Your task to perform on an android device: Go to sound settings Image 0: 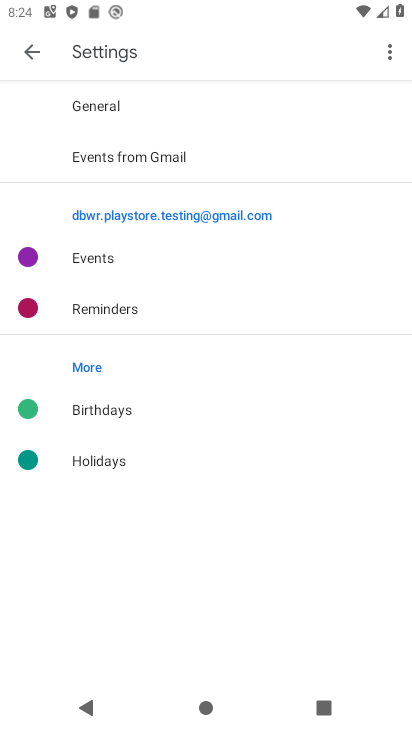
Step 0: press home button
Your task to perform on an android device: Go to sound settings Image 1: 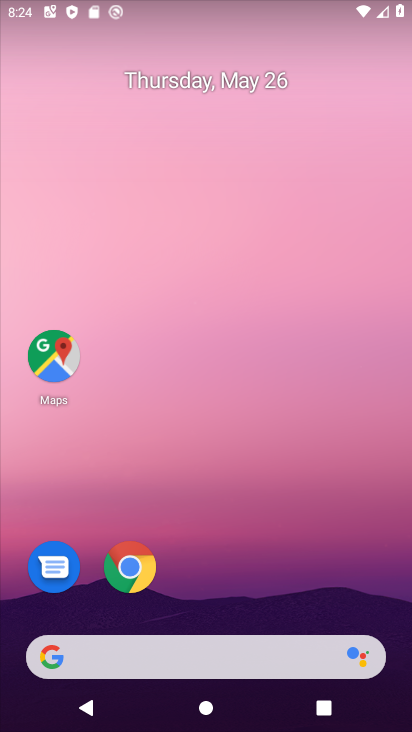
Step 1: drag from (173, 638) to (315, 71)
Your task to perform on an android device: Go to sound settings Image 2: 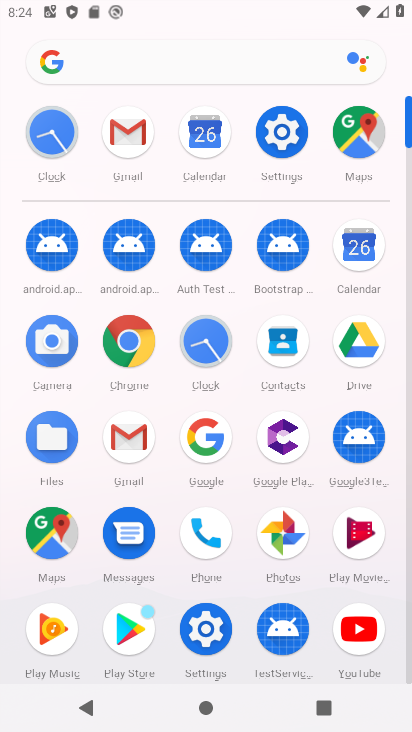
Step 2: click (285, 130)
Your task to perform on an android device: Go to sound settings Image 3: 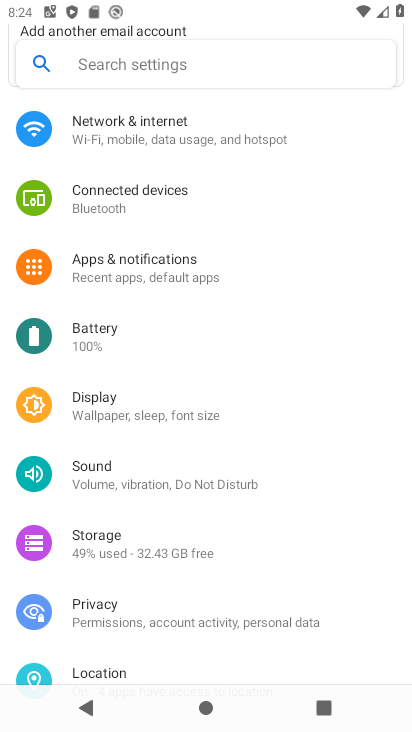
Step 3: click (155, 470)
Your task to perform on an android device: Go to sound settings Image 4: 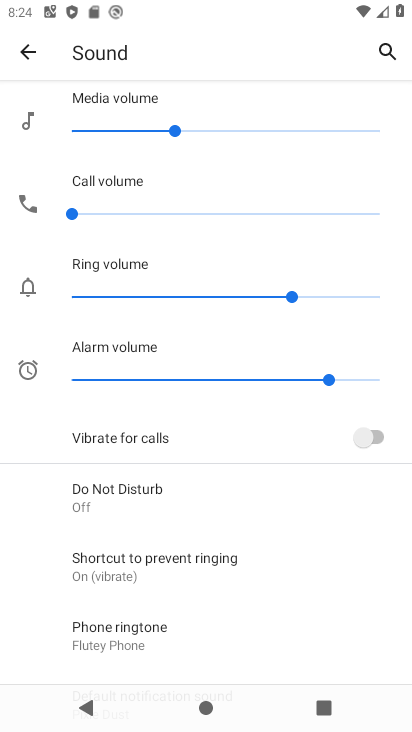
Step 4: task complete